Your task to perform on an android device: turn smart compose on in the gmail app Image 0: 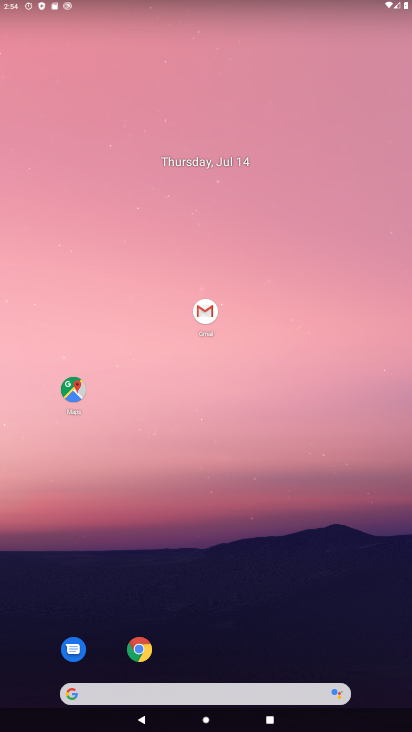
Step 0: click (209, 311)
Your task to perform on an android device: turn smart compose on in the gmail app Image 1: 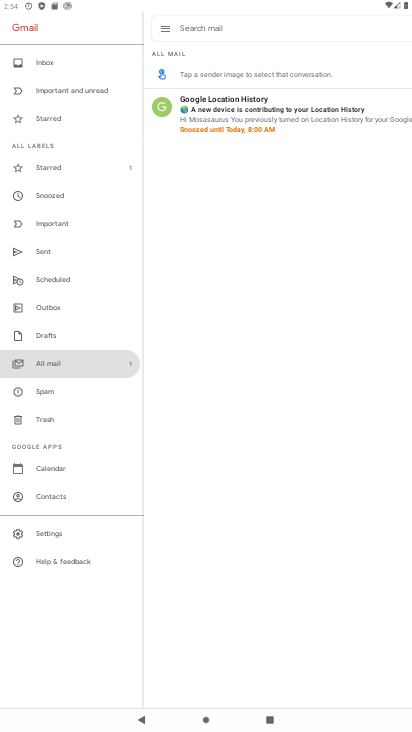
Step 1: click (66, 534)
Your task to perform on an android device: turn smart compose on in the gmail app Image 2: 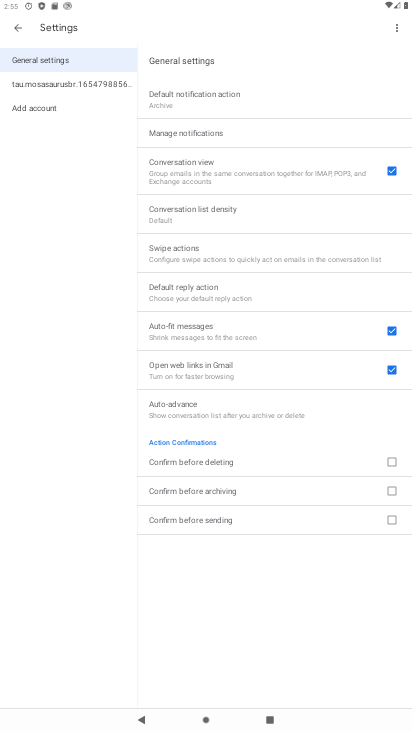
Step 2: click (65, 90)
Your task to perform on an android device: turn smart compose on in the gmail app Image 3: 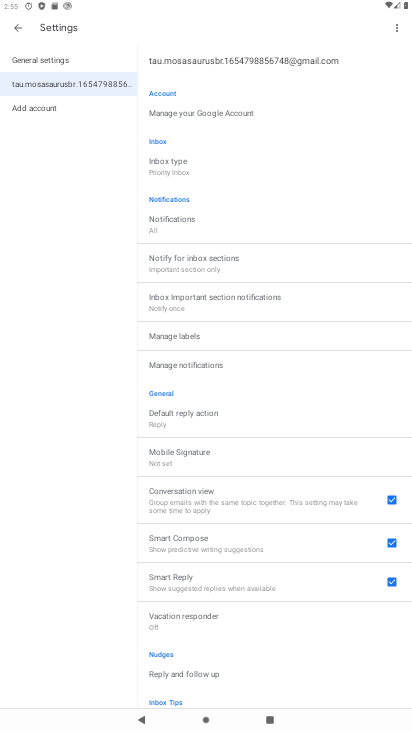
Step 3: task complete